Your task to perform on an android device: turn on notifications settings in the gmail app Image 0: 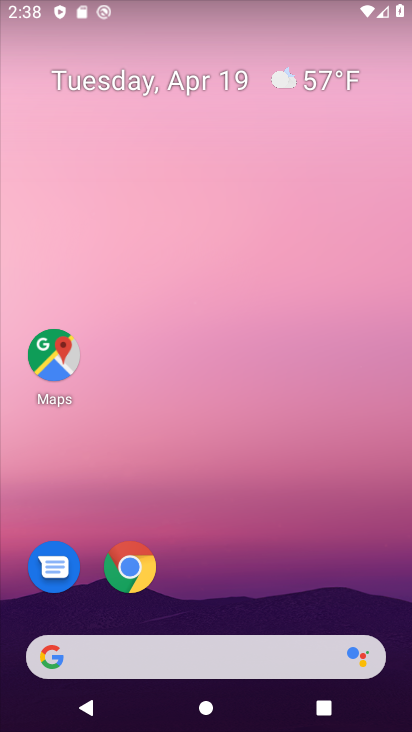
Step 0: drag from (382, 600) to (361, 117)
Your task to perform on an android device: turn on notifications settings in the gmail app Image 1: 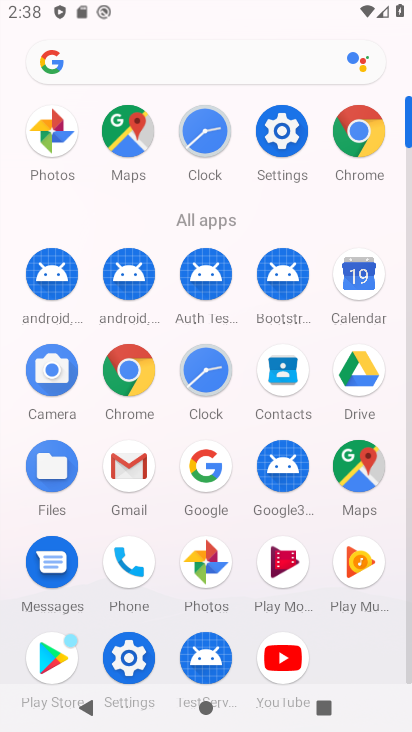
Step 1: click (131, 480)
Your task to perform on an android device: turn on notifications settings in the gmail app Image 2: 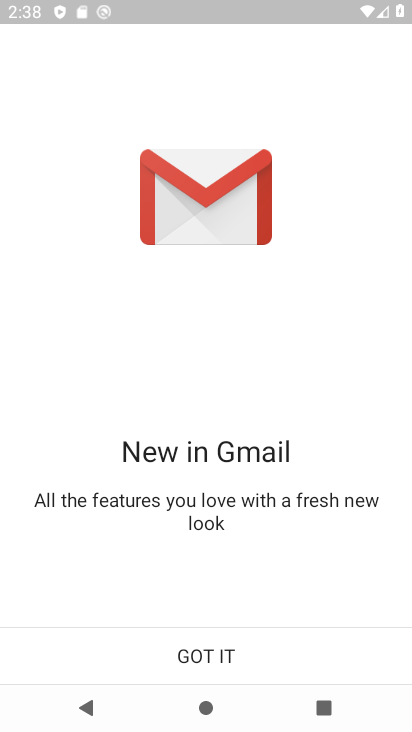
Step 2: click (234, 649)
Your task to perform on an android device: turn on notifications settings in the gmail app Image 3: 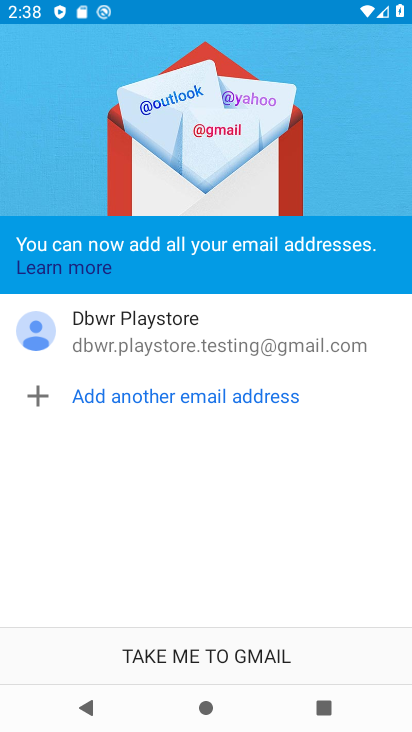
Step 3: click (254, 659)
Your task to perform on an android device: turn on notifications settings in the gmail app Image 4: 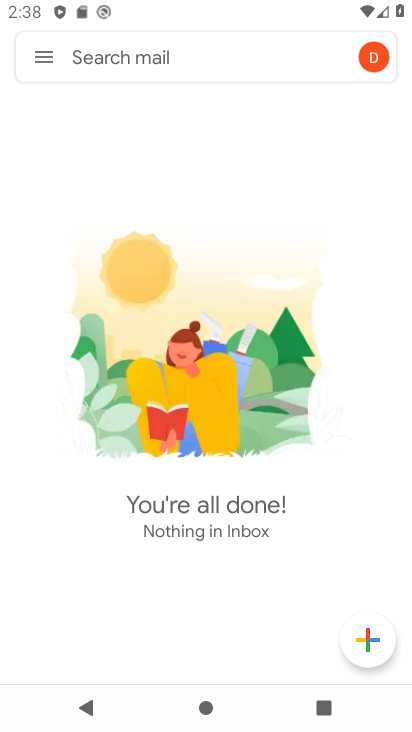
Step 4: click (41, 50)
Your task to perform on an android device: turn on notifications settings in the gmail app Image 5: 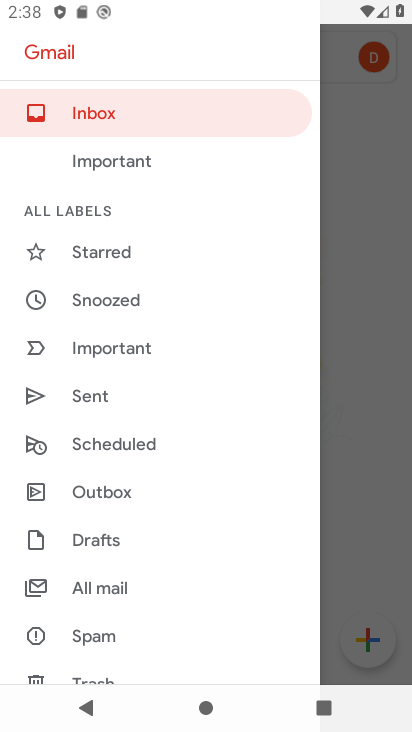
Step 5: drag from (245, 568) to (250, 267)
Your task to perform on an android device: turn on notifications settings in the gmail app Image 6: 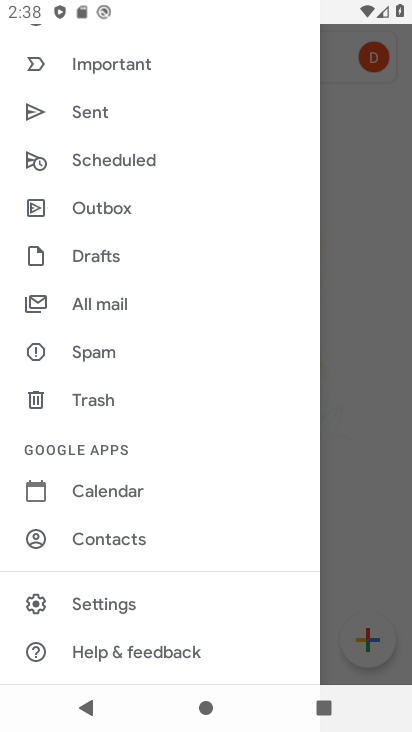
Step 6: click (129, 605)
Your task to perform on an android device: turn on notifications settings in the gmail app Image 7: 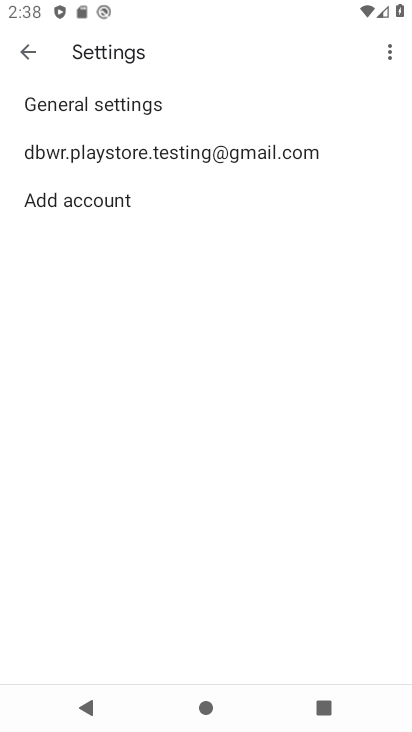
Step 7: click (203, 147)
Your task to perform on an android device: turn on notifications settings in the gmail app Image 8: 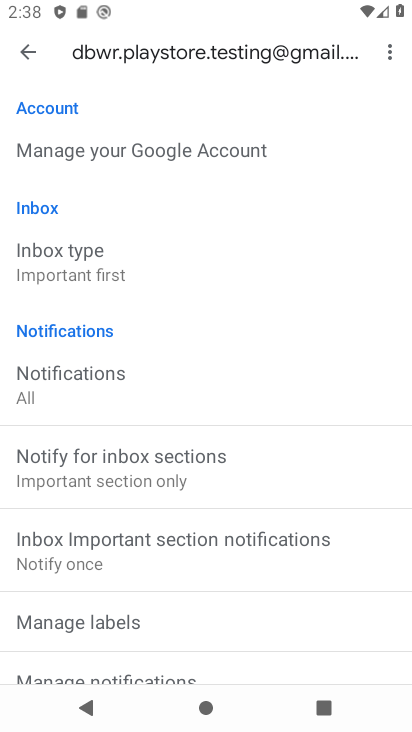
Step 8: drag from (324, 590) to (334, 305)
Your task to perform on an android device: turn on notifications settings in the gmail app Image 9: 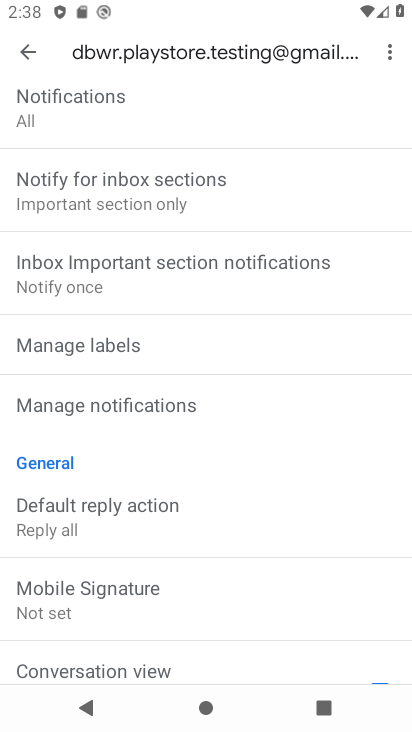
Step 9: drag from (336, 596) to (327, 374)
Your task to perform on an android device: turn on notifications settings in the gmail app Image 10: 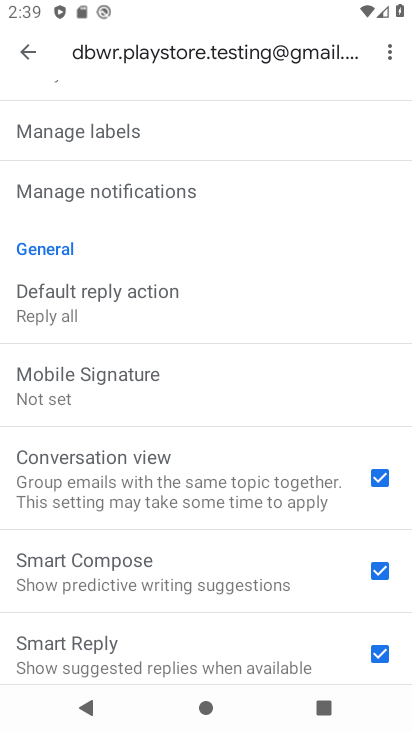
Step 10: drag from (310, 595) to (312, 349)
Your task to perform on an android device: turn on notifications settings in the gmail app Image 11: 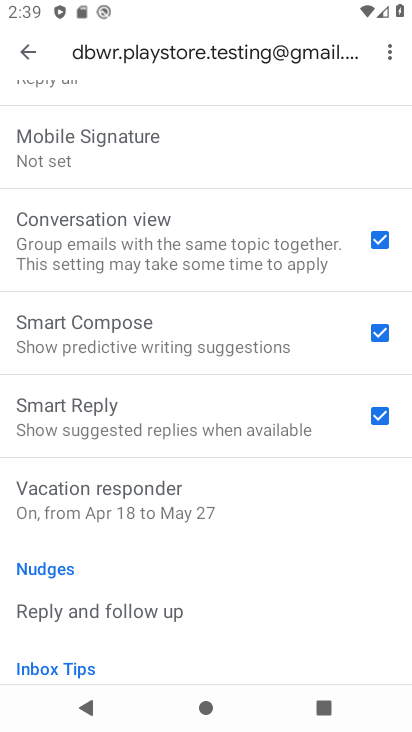
Step 11: drag from (285, 189) to (272, 465)
Your task to perform on an android device: turn on notifications settings in the gmail app Image 12: 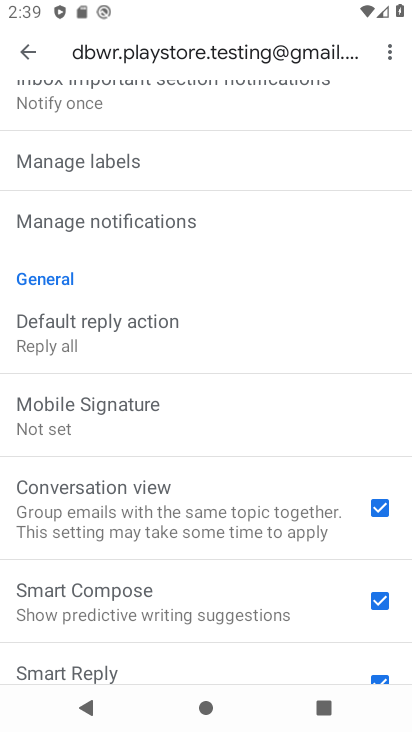
Step 12: drag from (276, 246) to (271, 445)
Your task to perform on an android device: turn on notifications settings in the gmail app Image 13: 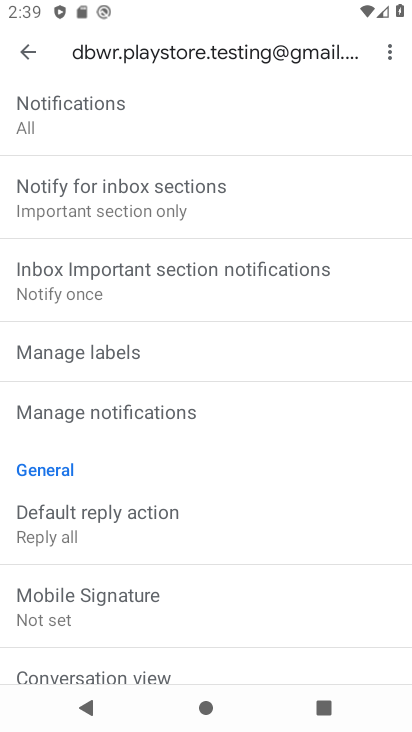
Step 13: click (190, 434)
Your task to perform on an android device: turn on notifications settings in the gmail app Image 14: 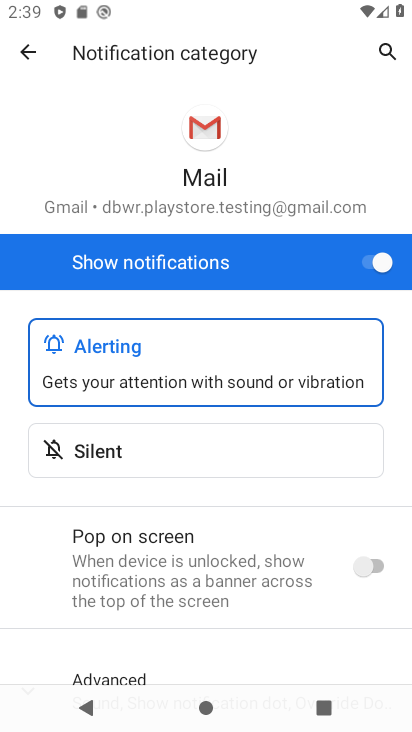
Step 14: task complete